Your task to perform on an android device: Go to calendar. Show me events next week Image 0: 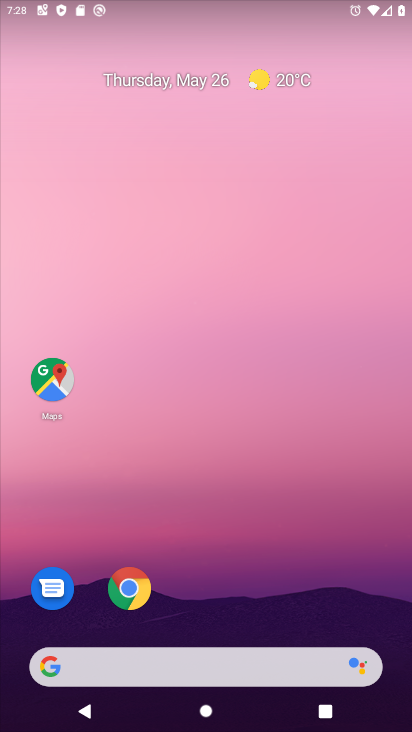
Step 0: drag from (366, 619) to (226, 75)
Your task to perform on an android device: Go to calendar. Show me events next week Image 1: 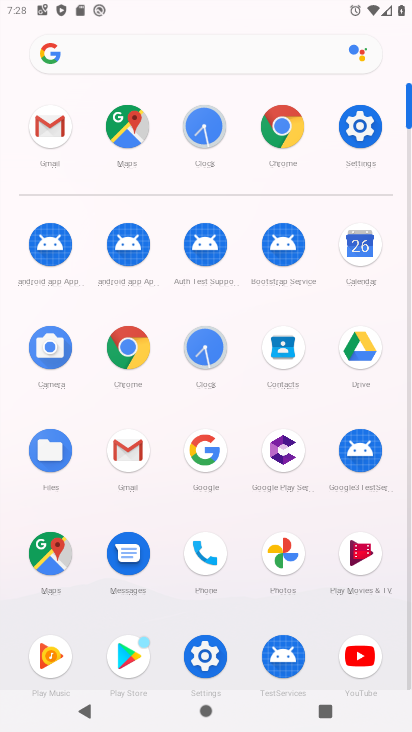
Step 1: click (358, 239)
Your task to perform on an android device: Go to calendar. Show me events next week Image 2: 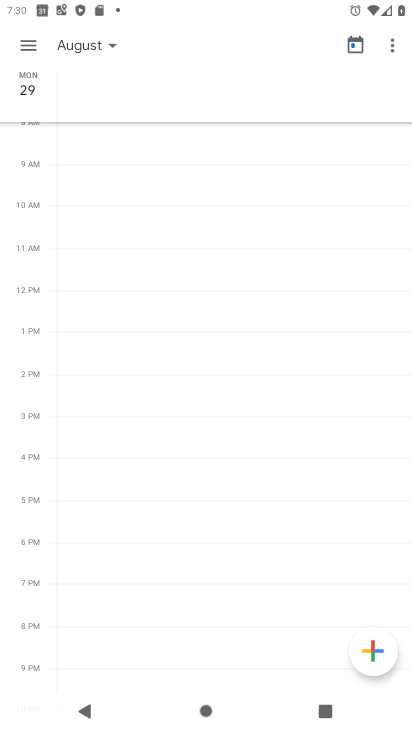
Step 2: task complete